Your task to perform on an android device: turn vacation reply on in the gmail app Image 0: 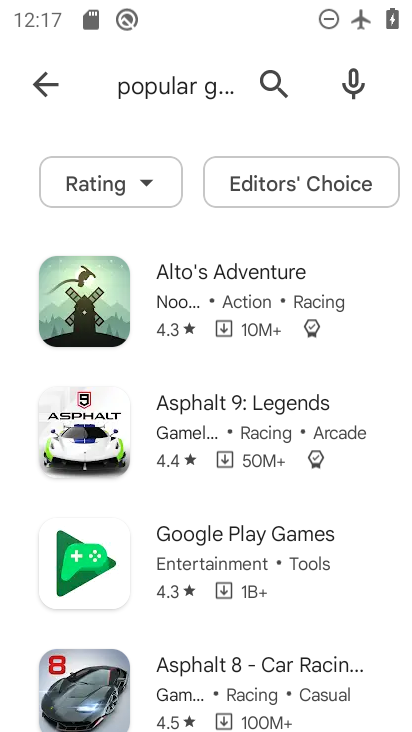
Step 0: press home button
Your task to perform on an android device: turn vacation reply on in the gmail app Image 1: 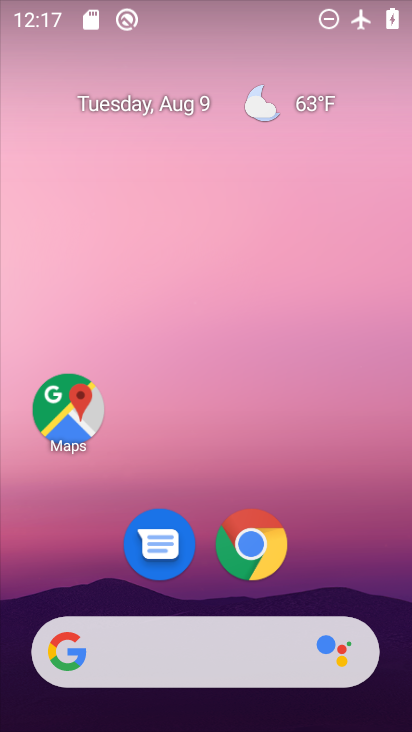
Step 1: drag from (156, 639) to (253, 170)
Your task to perform on an android device: turn vacation reply on in the gmail app Image 2: 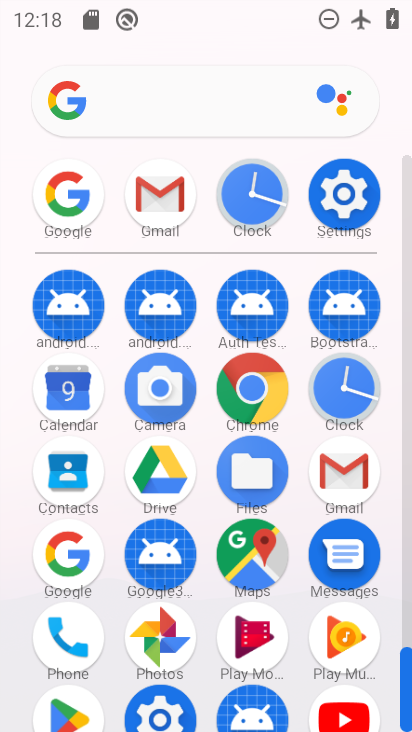
Step 2: click (160, 194)
Your task to perform on an android device: turn vacation reply on in the gmail app Image 3: 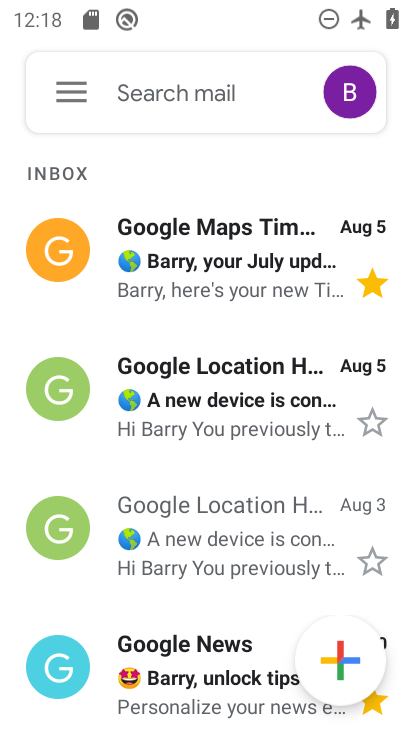
Step 3: click (84, 84)
Your task to perform on an android device: turn vacation reply on in the gmail app Image 4: 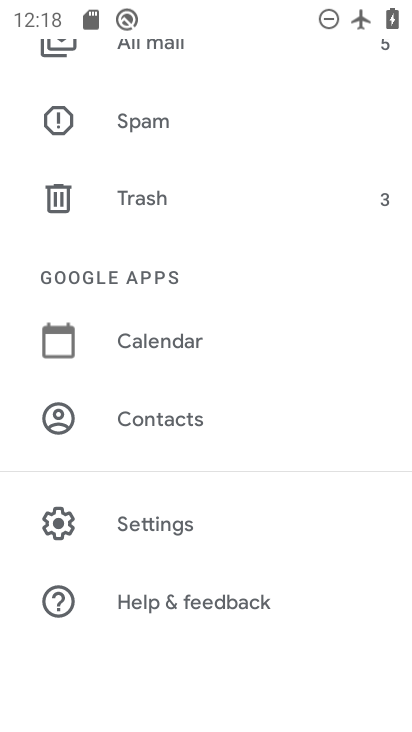
Step 4: click (162, 523)
Your task to perform on an android device: turn vacation reply on in the gmail app Image 5: 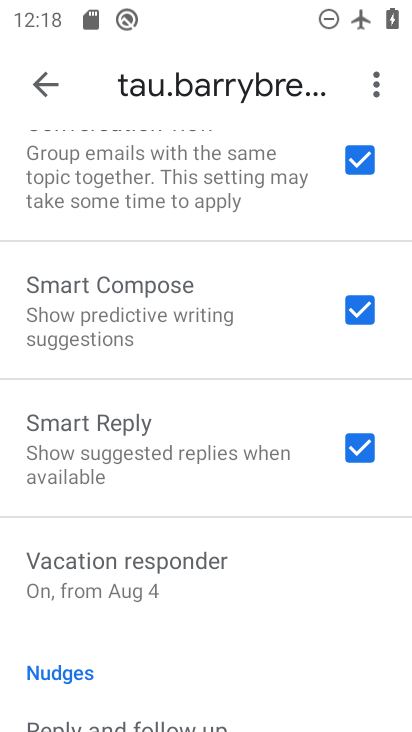
Step 5: click (169, 575)
Your task to perform on an android device: turn vacation reply on in the gmail app Image 6: 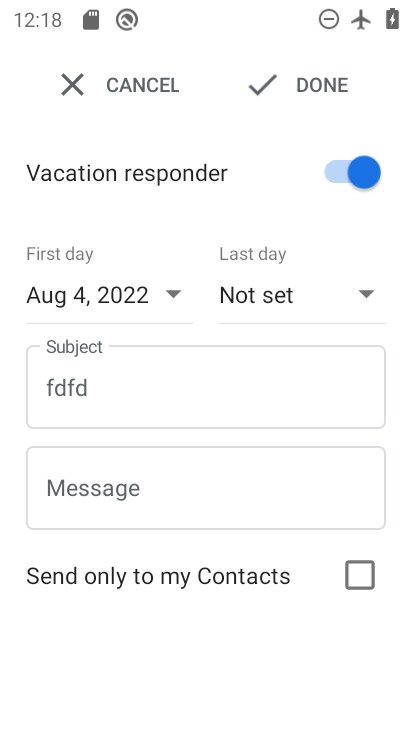
Step 6: task complete